Your task to perform on an android device: turn on showing notifications on the lock screen Image 0: 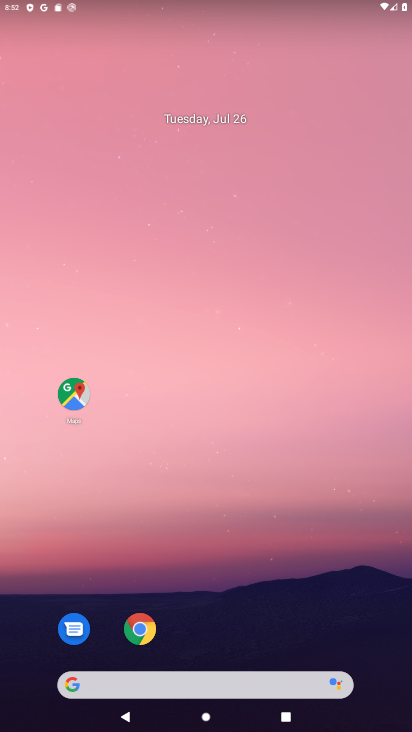
Step 0: press home button
Your task to perform on an android device: turn on showing notifications on the lock screen Image 1: 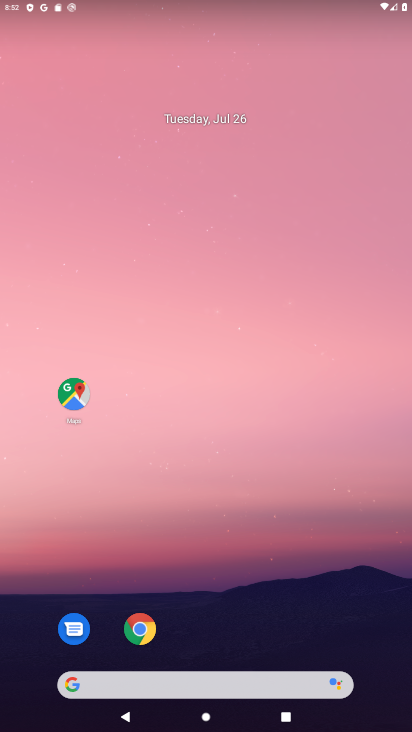
Step 1: drag from (286, 611) to (195, 145)
Your task to perform on an android device: turn on showing notifications on the lock screen Image 2: 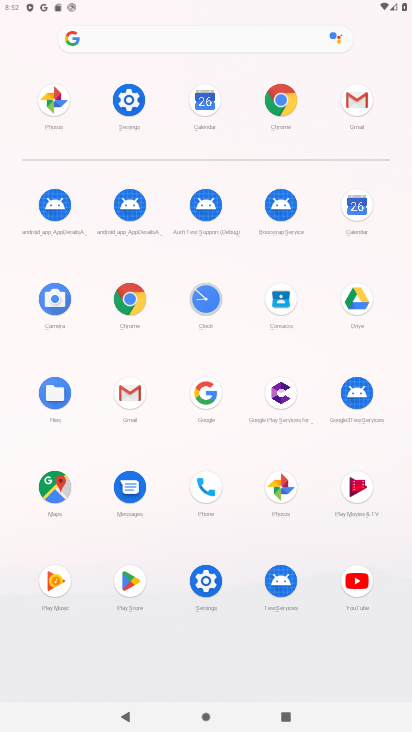
Step 2: click (130, 103)
Your task to perform on an android device: turn on showing notifications on the lock screen Image 3: 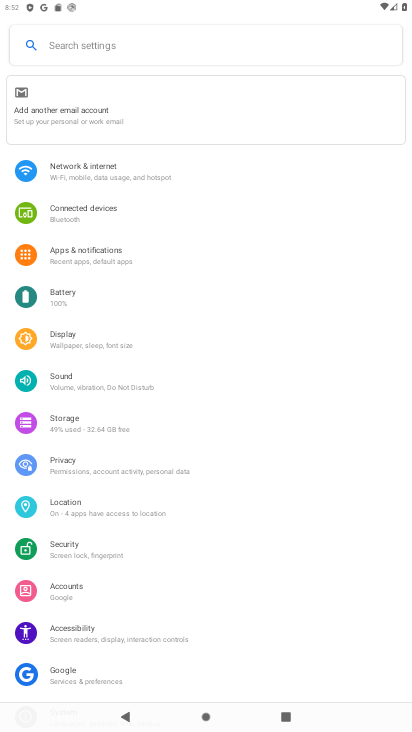
Step 3: click (37, 268)
Your task to perform on an android device: turn on showing notifications on the lock screen Image 4: 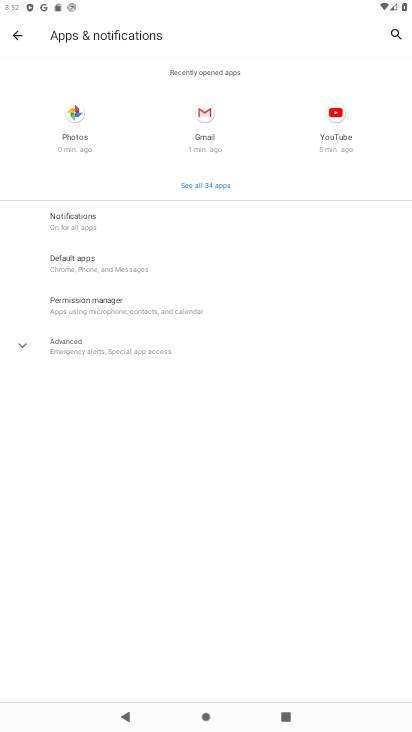
Step 4: click (99, 214)
Your task to perform on an android device: turn on showing notifications on the lock screen Image 5: 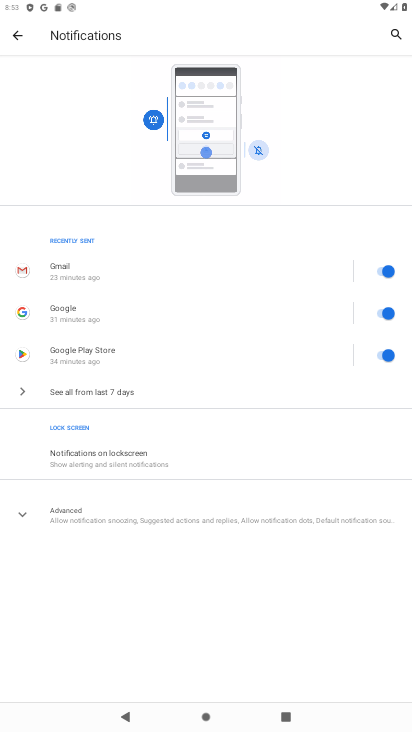
Step 5: click (121, 452)
Your task to perform on an android device: turn on showing notifications on the lock screen Image 6: 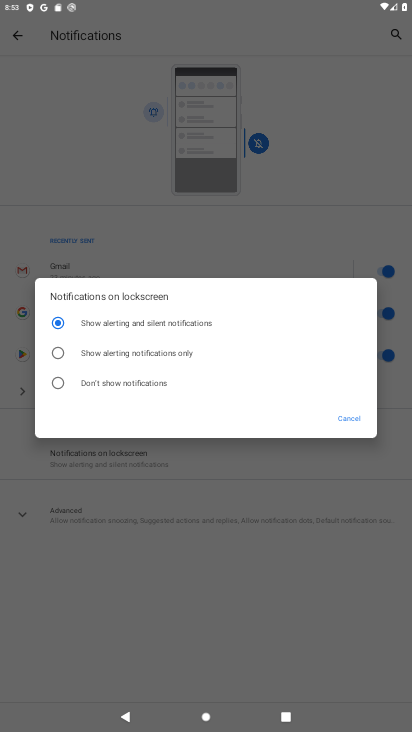
Step 6: click (137, 319)
Your task to perform on an android device: turn on showing notifications on the lock screen Image 7: 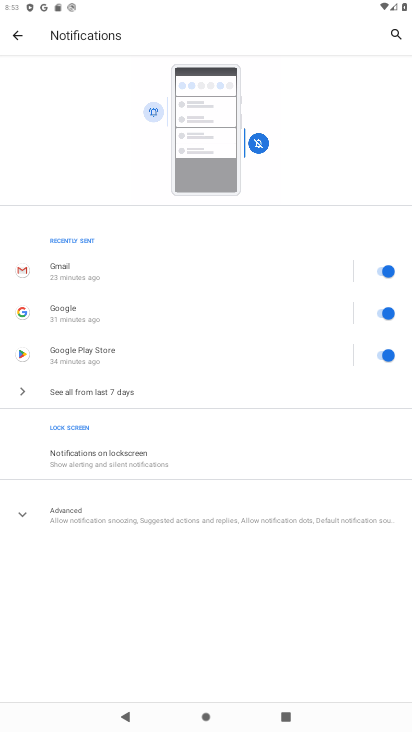
Step 7: task complete